Your task to perform on an android device: Open Wikipedia Image 0: 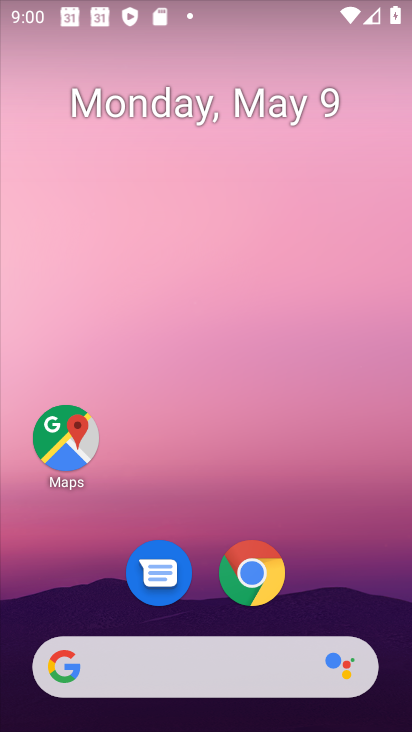
Step 0: click (261, 585)
Your task to perform on an android device: Open Wikipedia Image 1: 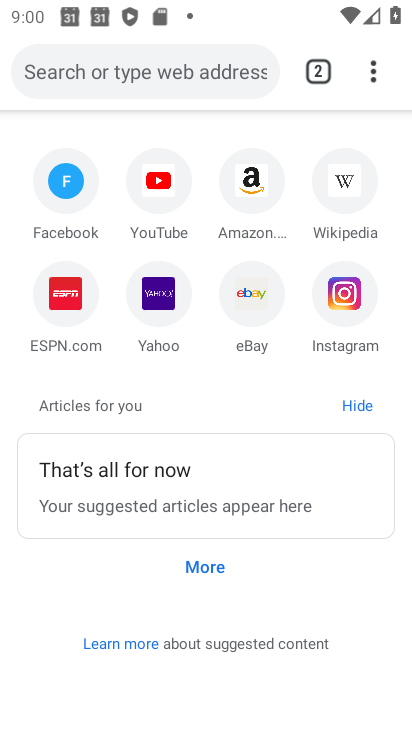
Step 1: click (348, 192)
Your task to perform on an android device: Open Wikipedia Image 2: 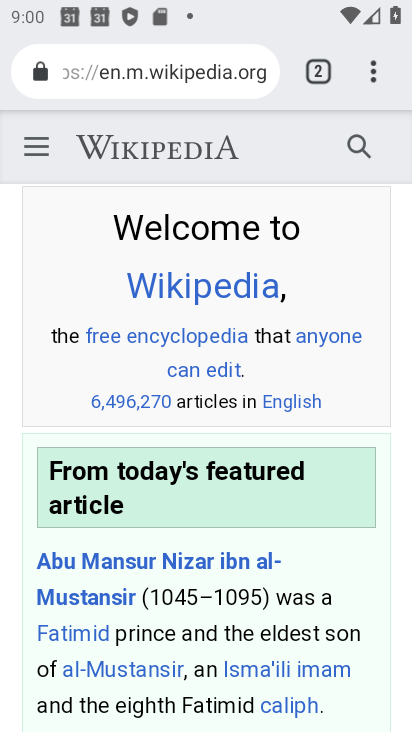
Step 2: task complete